Your task to perform on an android device: turn pop-ups off in chrome Image 0: 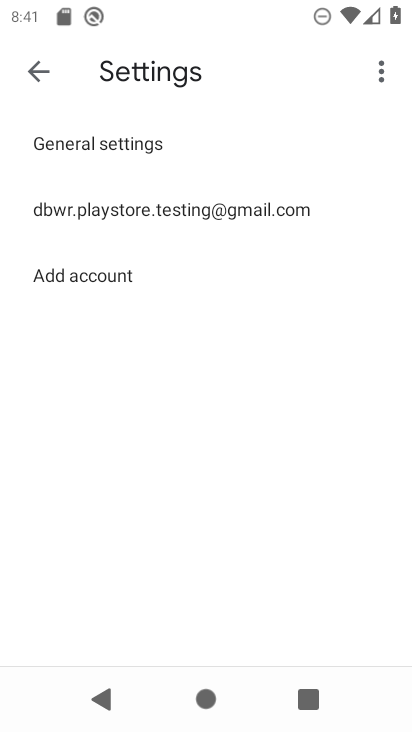
Step 0: press home button
Your task to perform on an android device: turn pop-ups off in chrome Image 1: 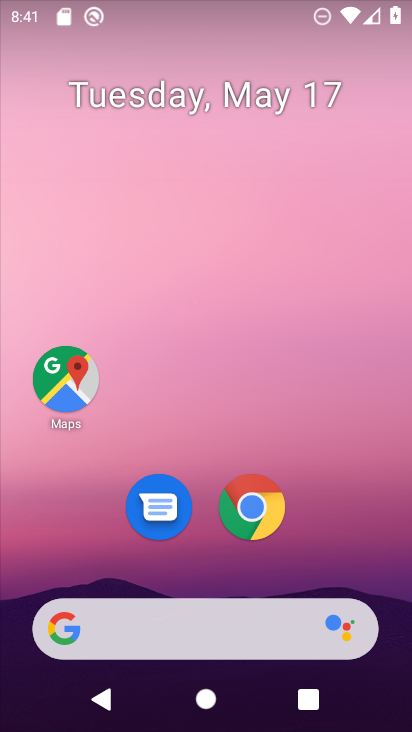
Step 1: click (255, 514)
Your task to perform on an android device: turn pop-ups off in chrome Image 2: 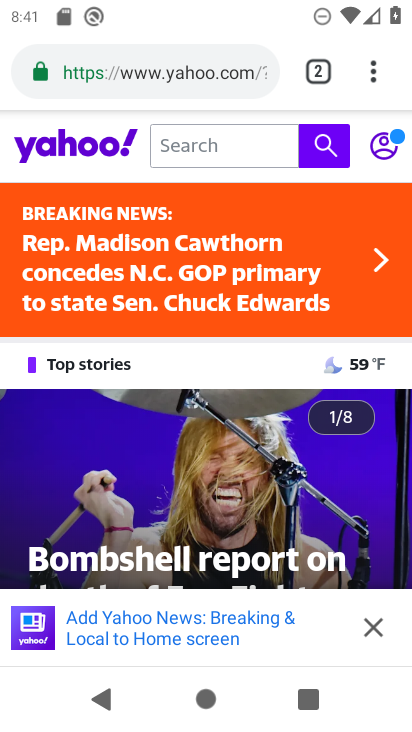
Step 2: click (367, 72)
Your task to perform on an android device: turn pop-ups off in chrome Image 3: 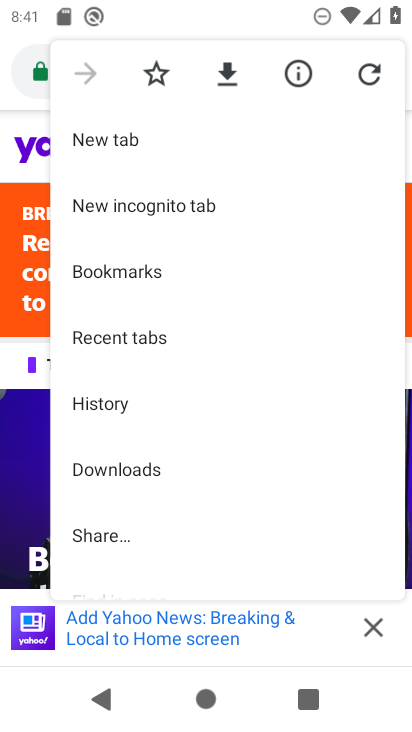
Step 3: drag from (228, 522) to (201, 138)
Your task to perform on an android device: turn pop-ups off in chrome Image 4: 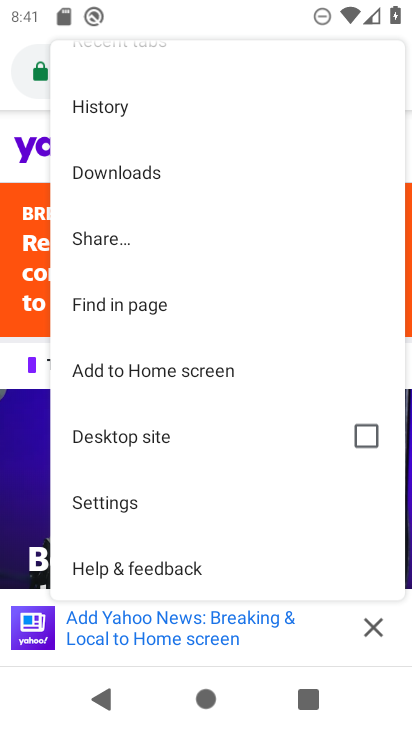
Step 4: click (103, 508)
Your task to perform on an android device: turn pop-ups off in chrome Image 5: 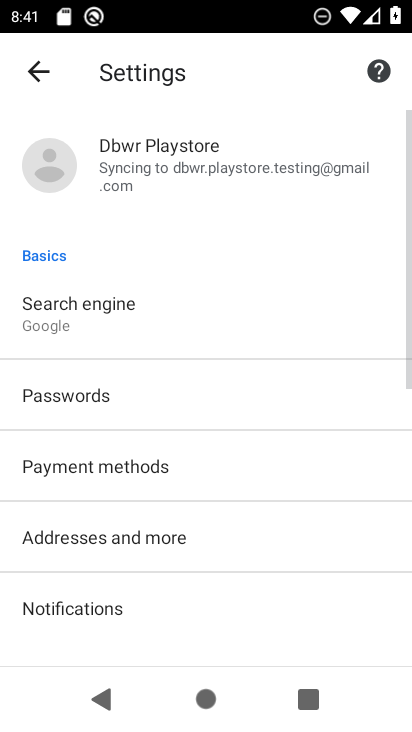
Step 5: drag from (202, 544) to (208, 119)
Your task to perform on an android device: turn pop-ups off in chrome Image 6: 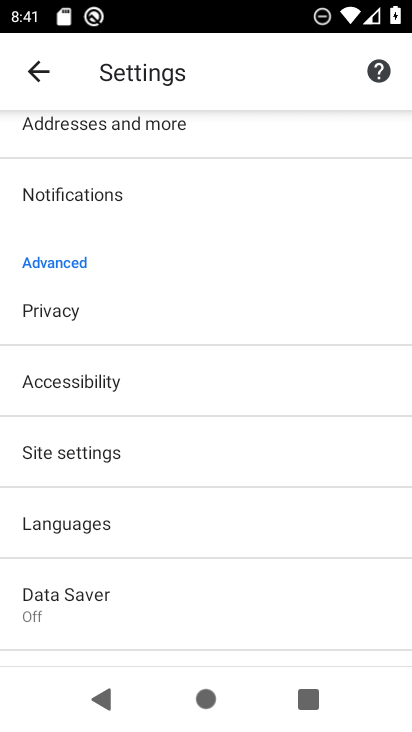
Step 6: click (106, 459)
Your task to perform on an android device: turn pop-ups off in chrome Image 7: 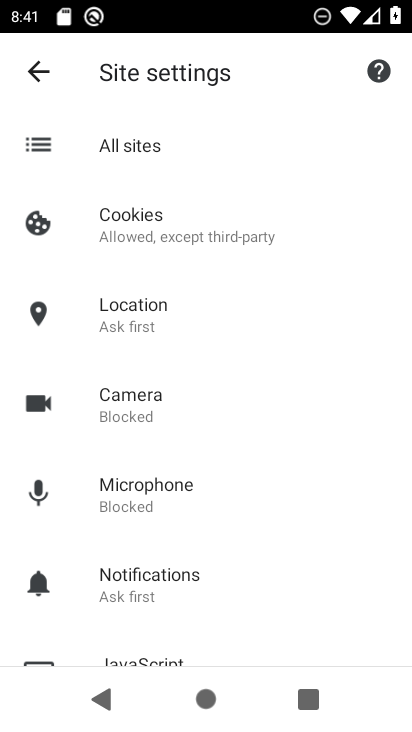
Step 7: drag from (246, 540) to (225, 198)
Your task to perform on an android device: turn pop-ups off in chrome Image 8: 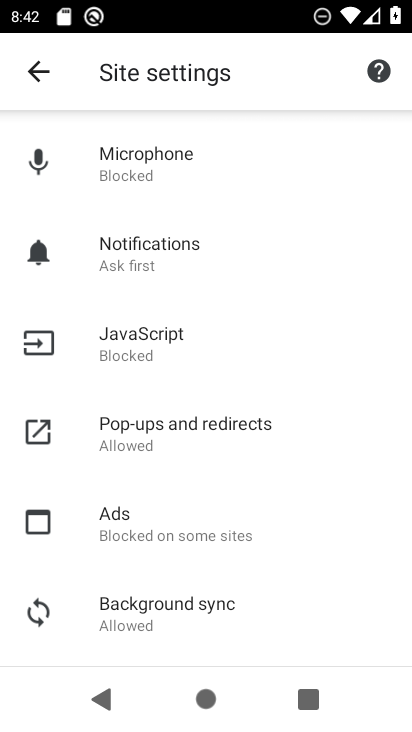
Step 8: click (140, 431)
Your task to perform on an android device: turn pop-ups off in chrome Image 9: 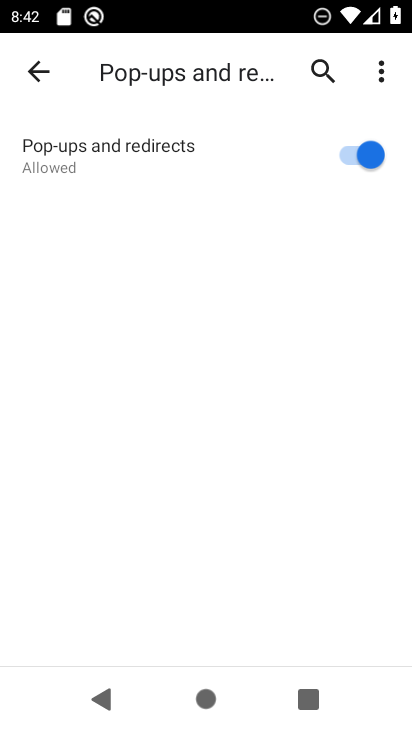
Step 9: click (366, 157)
Your task to perform on an android device: turn pop-ups off in chrome Image 10: 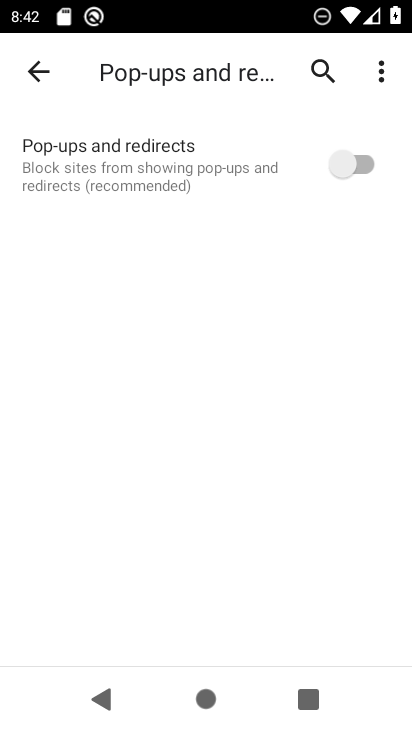
Step 10: task complete